Your task to perform on an android device: Open maps Image 0: 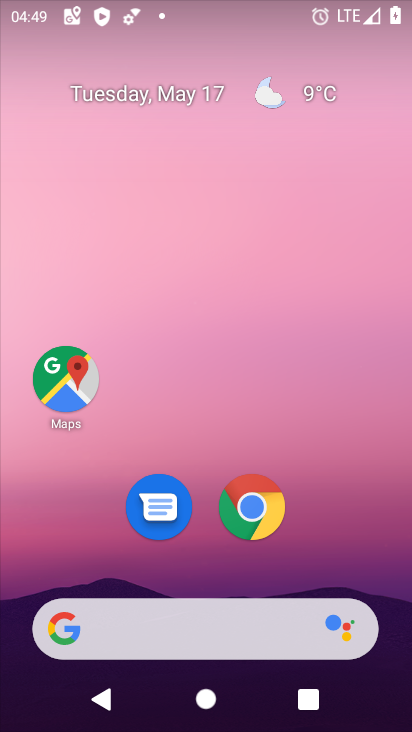
Step 0: click (57, 378)
Your task to perform on an android device: Open maps Image 1: 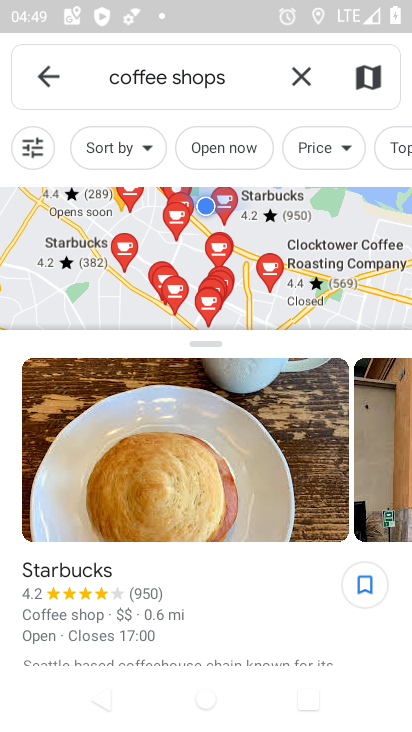
Step 1: task complete